Your task to perform on an android device: see tabs open on other devices in the chrome app Image 0: 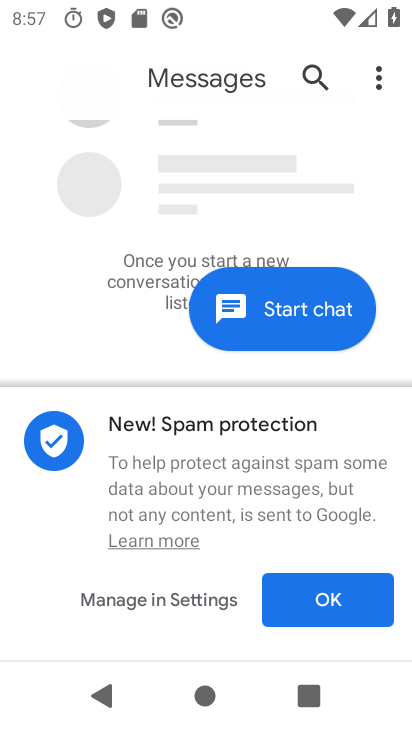
Step 0: press home button
Your task to perform on an android device: see tabs open on other devices in the chrome app Image 1: 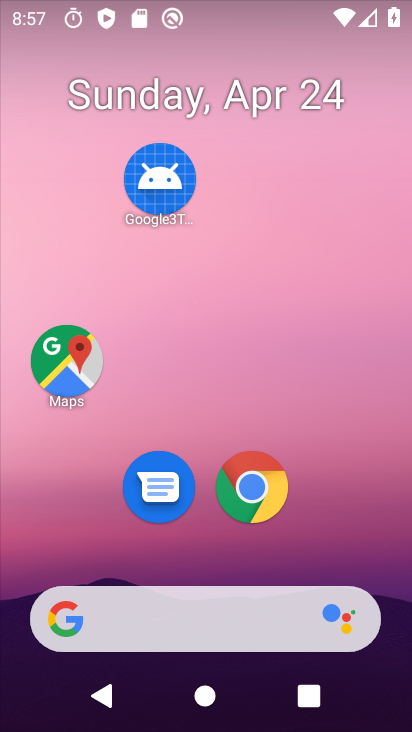
Step 1: click (253, 481)
Your task to perform on an android device: see tabs open on other devices in the chrome app Image 2: 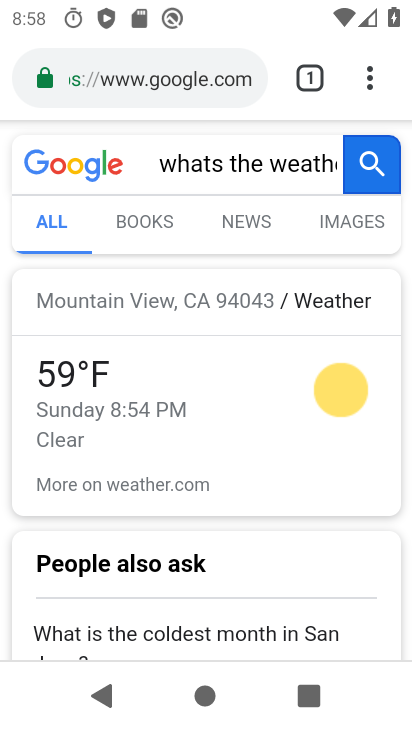
Step 2: task complete